Your task to perform on an android device: Is it going to rain today? Image 0: 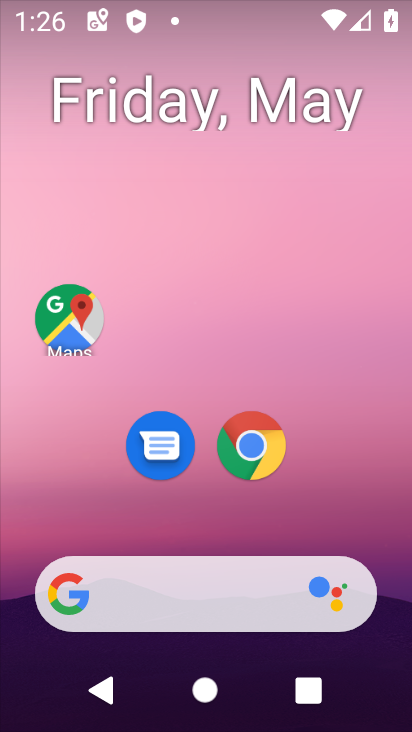
Step 0: drag from (16, 169) to (382, 257)
Your task to perform on an android device: Is it going to rain today? Image 1: 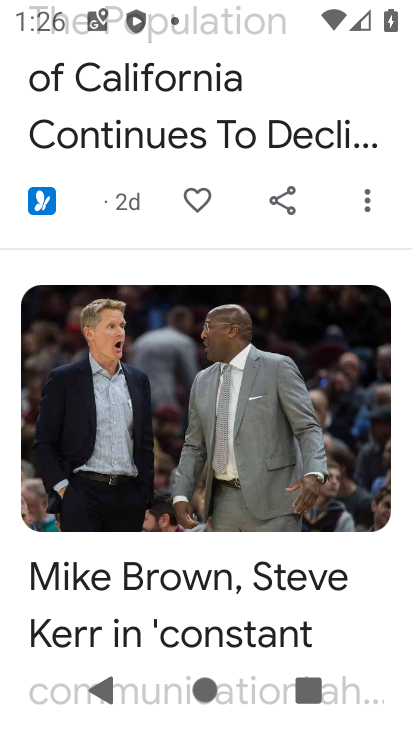
Step 1: drag from (335, 116) to (334, 603)
Your task to perform on an android device: Is it going to rain today? Image 2: 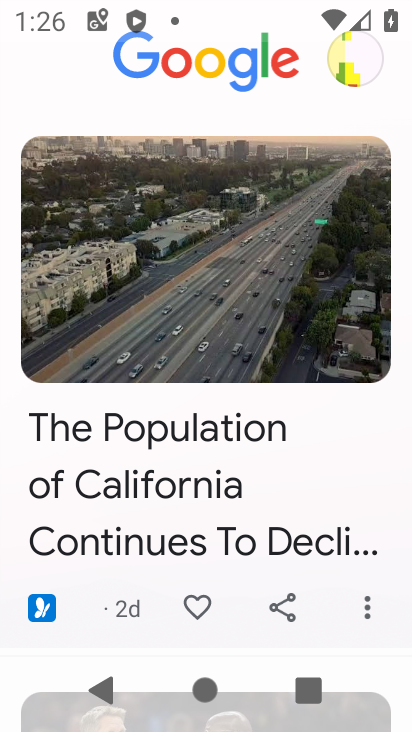
Step 2: drag from (340, 245) to (318, 513)
Your task to perform on an android device: Is it going to rain today? Image 3: 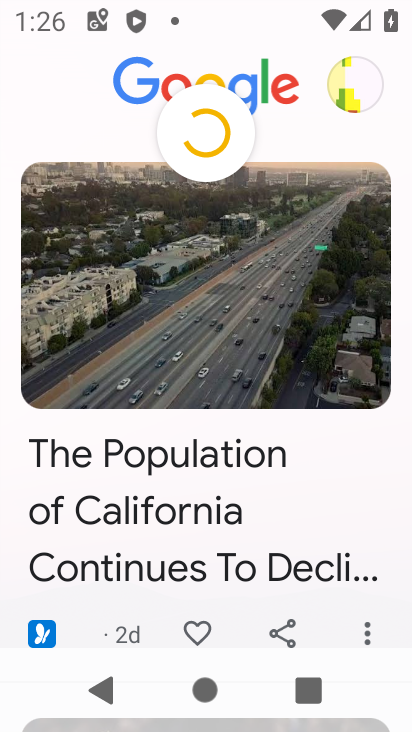
Step 3: press back button
Your task to perform on an android device: Is it going to rain today? Image 4: 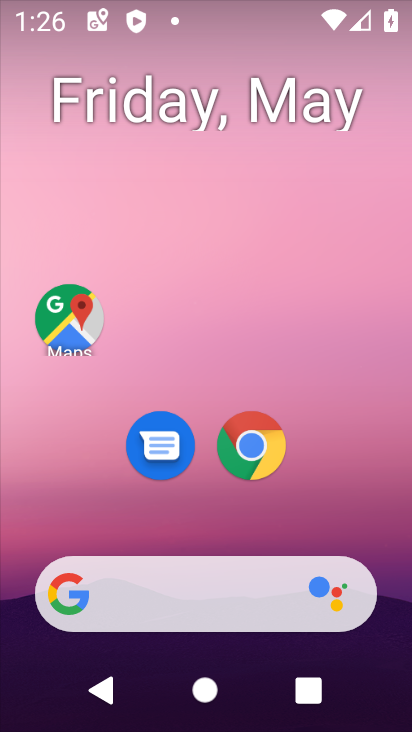
Step 4: click (221, 596)
Your task to perform on an android device: Is it going to rain today? Image 5: 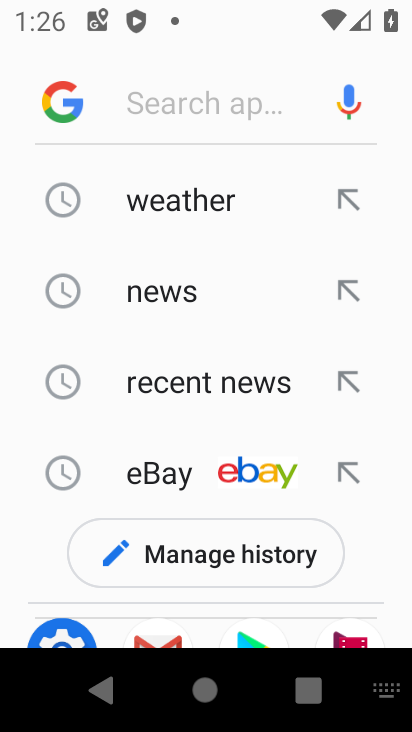
Step 5: click (169, 202)
Your task to perform on an android device: Is it going to rain today? Image 6: 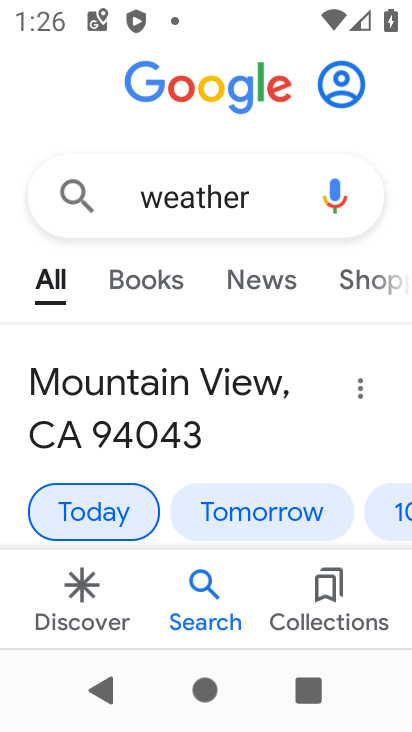
Step 6: drag from (206, 434) to (239, 171)
Your task to perform on an android device: Is it going to rain today? Image 7: 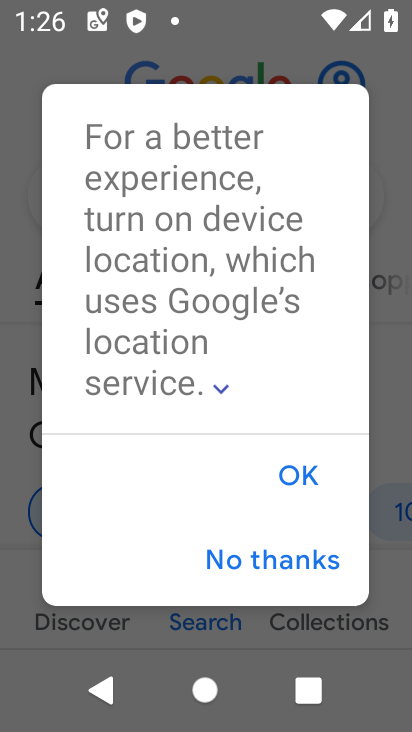
Step 7: click (298, 469)
Your task to perform on an android device: Is it going to rain today? Image 8: 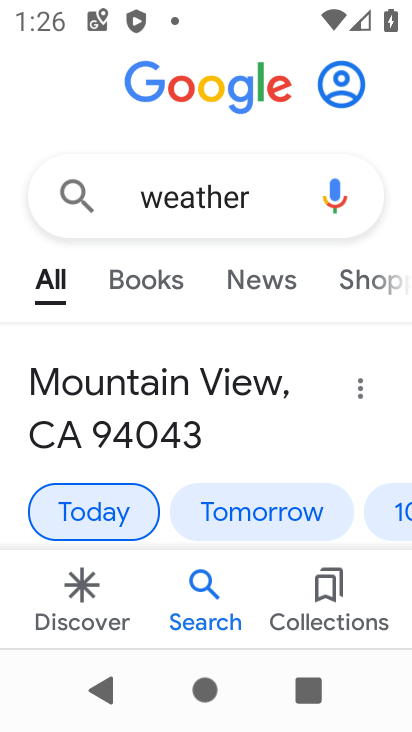
Step 8: task complete